Your task to perform on an android device: change text size in settings app Image 0: 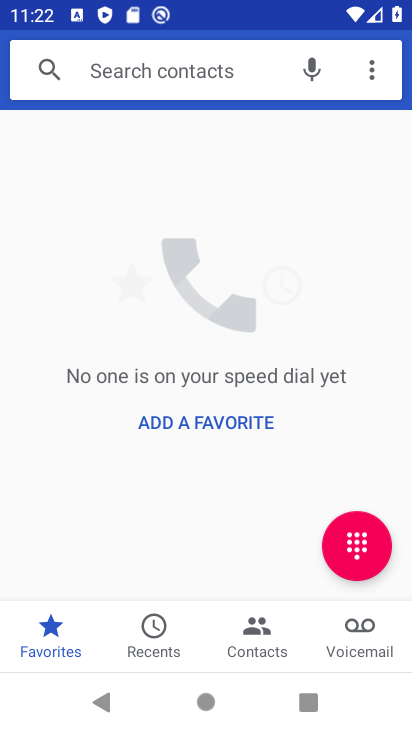
Step 0: press home button
Your task to perform on an android device: change text size in settings app Image 1: 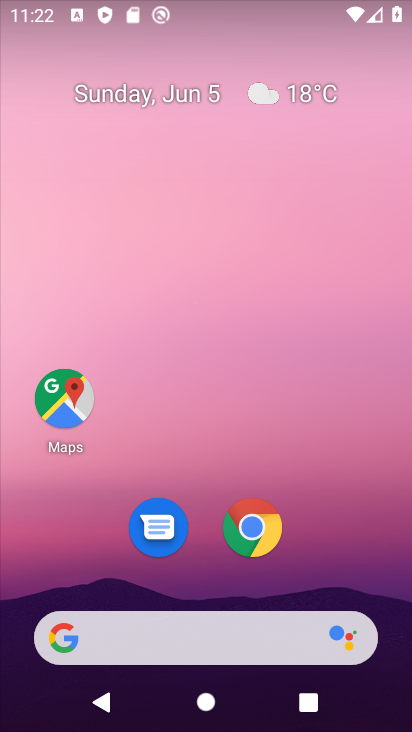
Step 1: click (339, 490)
Your task to perform on an android device: change text size in settings app Image 2: 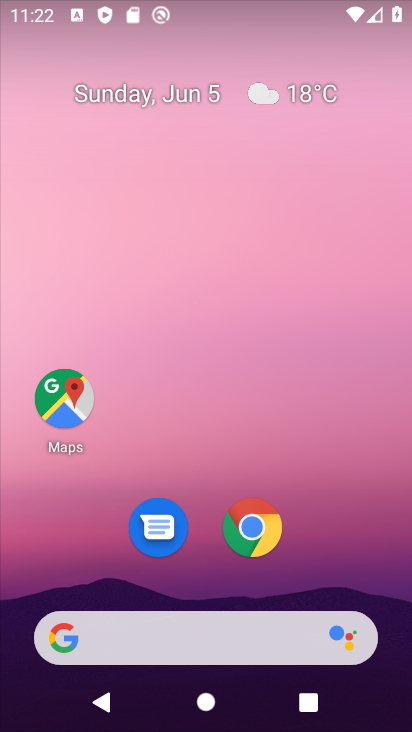
Step 2: drag from (339, 490) to (342, 89)
Your task to perform on an android device: change text size in settings app Image 3: 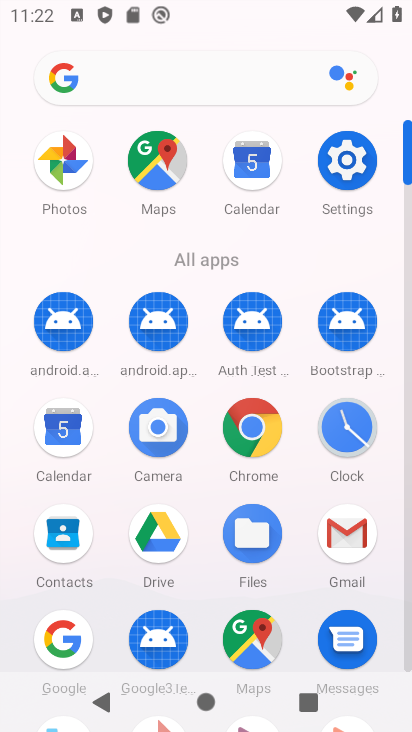
Step 3: click (344, 162)
Your task to perform on an android device: change text size in settings app Image 4: 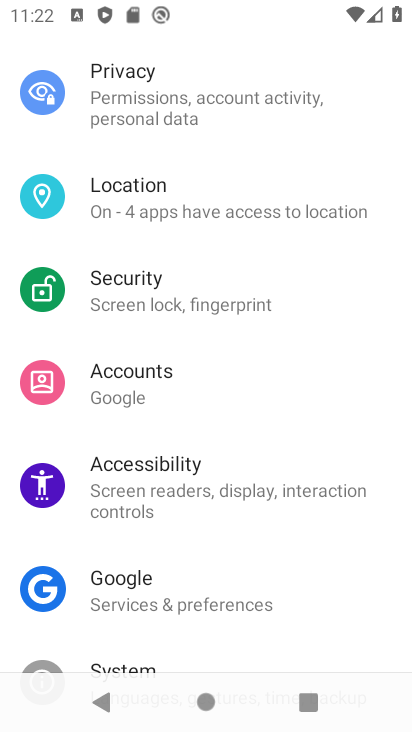
Step 4: drag from (376, 128) to (324, 494)
Your task to perform on an android device: change text size in settings app Image 5: 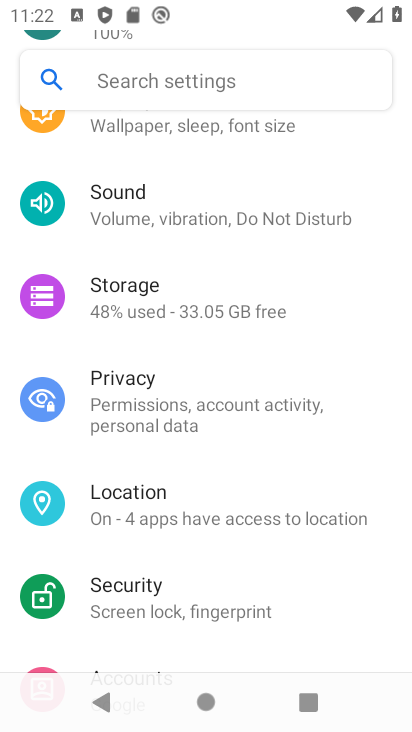
Step 5: click (299, 131)
Your task to perform on an android device: change text size in settings app Image 6: 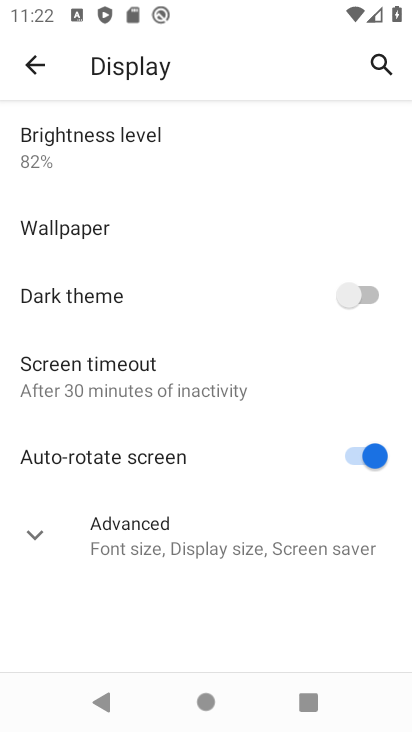
Step 6: click (106, 541)
Your task to perform on an android device: change text size in settings app Image 7: 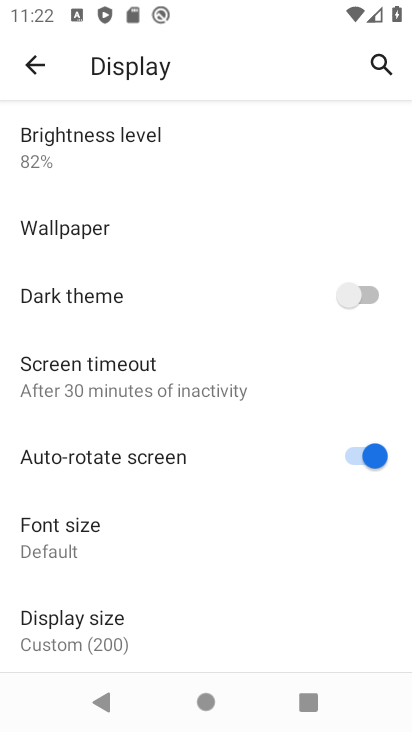
Step 7: click (90, 536)
Your task to perform on an android device: change text size in settings app Image 8: 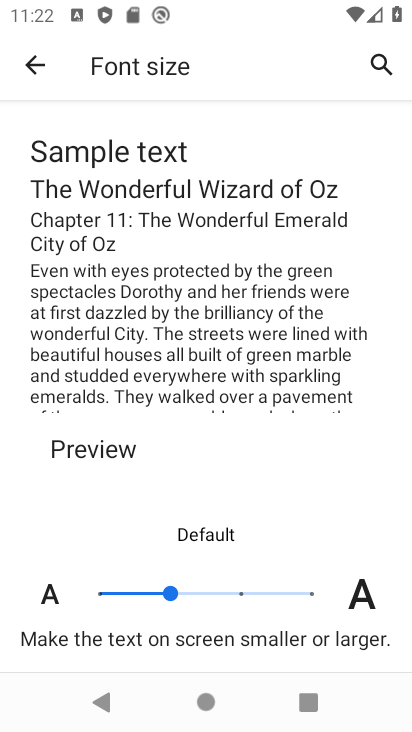
Step 8: click (101, 595)
Your task to perform on an android device: change text size in settings app Image 9: 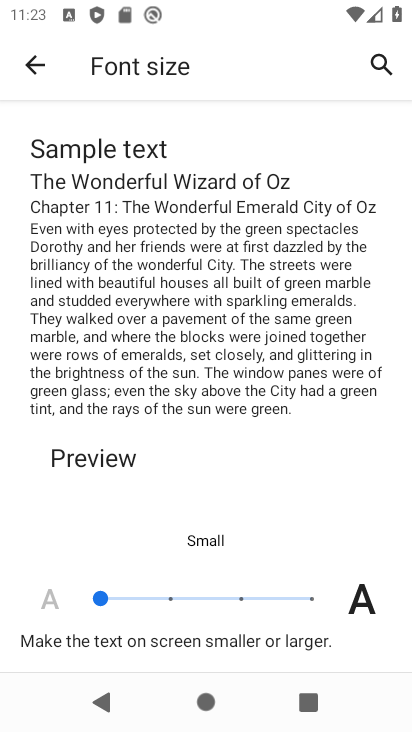
Step 9: task complete